Your task to perform on an android device: Open battery settings Image 0: 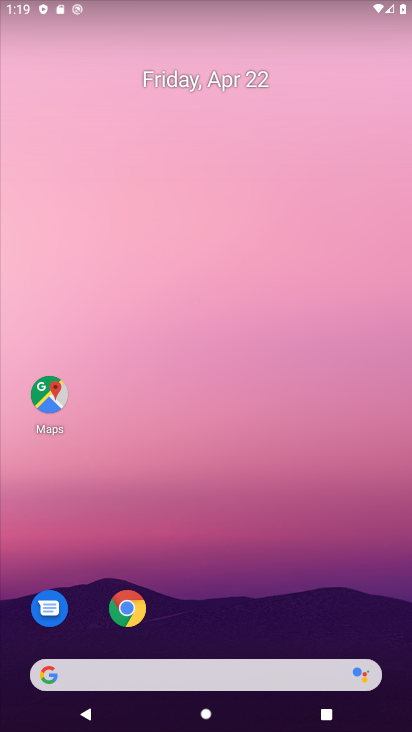
Step 0: drag from (283, 704) to (255, 128)
Your task to perform on an android device: Open battery settings Image 1: 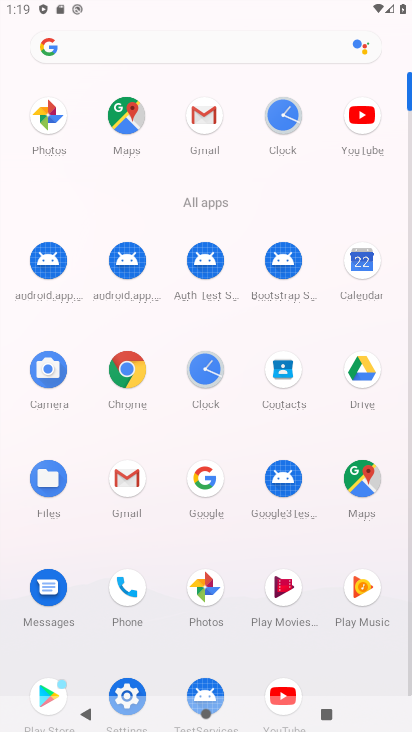
Step 1: click (118, 675)
Your task to perform on an android device: Open battery settings Image 2: 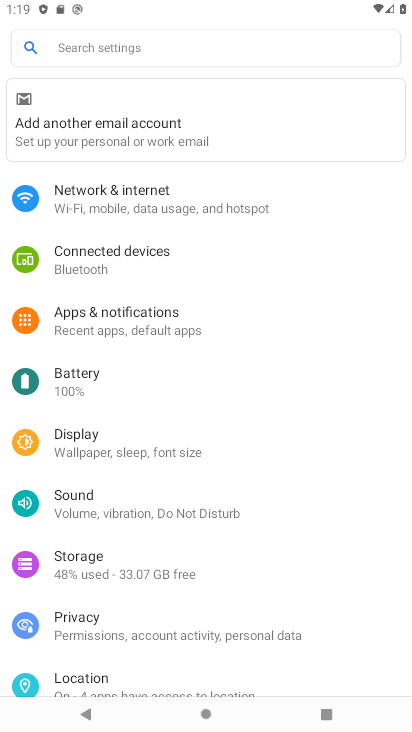
Step 2: click (112, 384)
Your task to perform on an android device: Open battery settings Image 3: 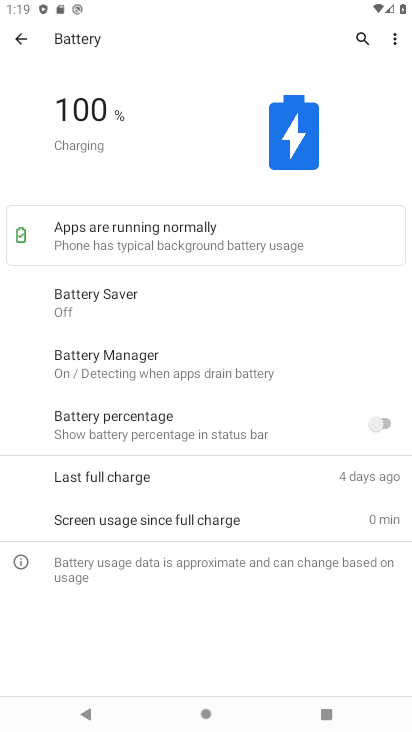
Step 3: task complete